Your task to perform on an android device: turn on notifications settings in the gmail app Image 0: 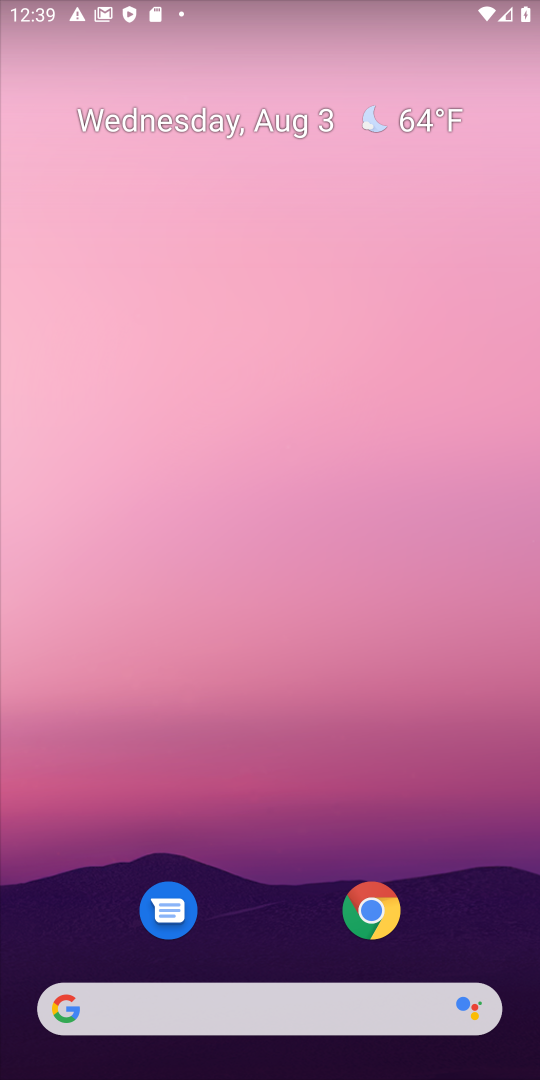
Step 0: drag from (398, 1000) to (532, 342)
Your task to perform on an android device: turn on notifications settings in the gmail app Image 1: 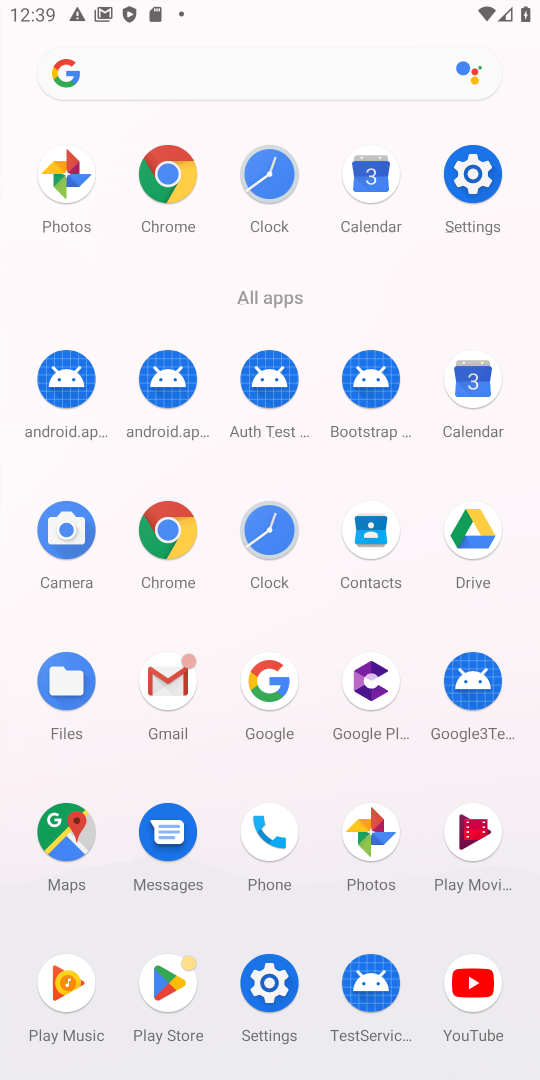
Step 1: click (187, 642)
Your task to perform on an android device: turn on notifications settings in the gmail app Image 2: 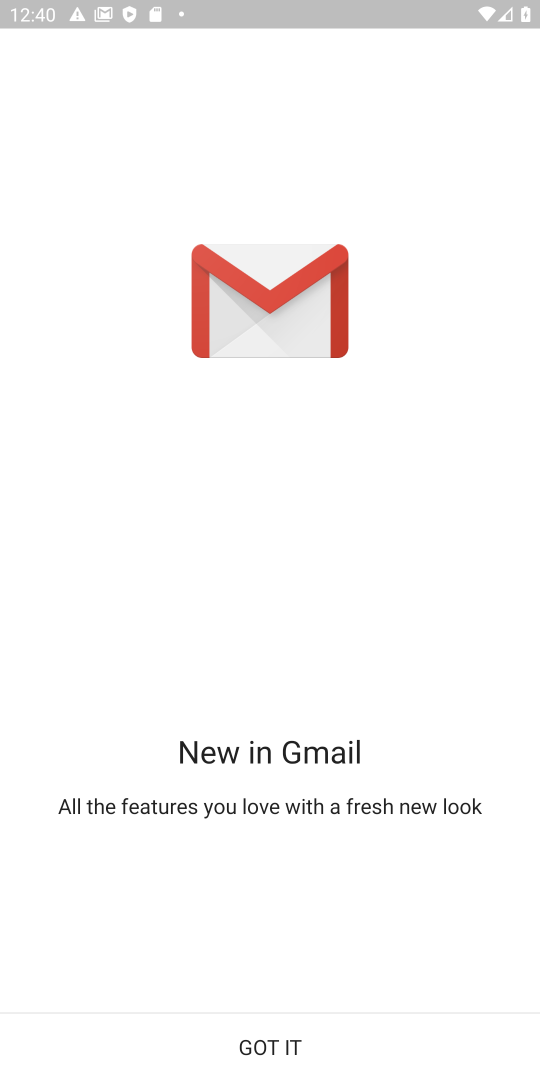
Step 2: click (281, 1029)
Your task to perform on an android device: turn on notifications settings in the gmail app Image 3: 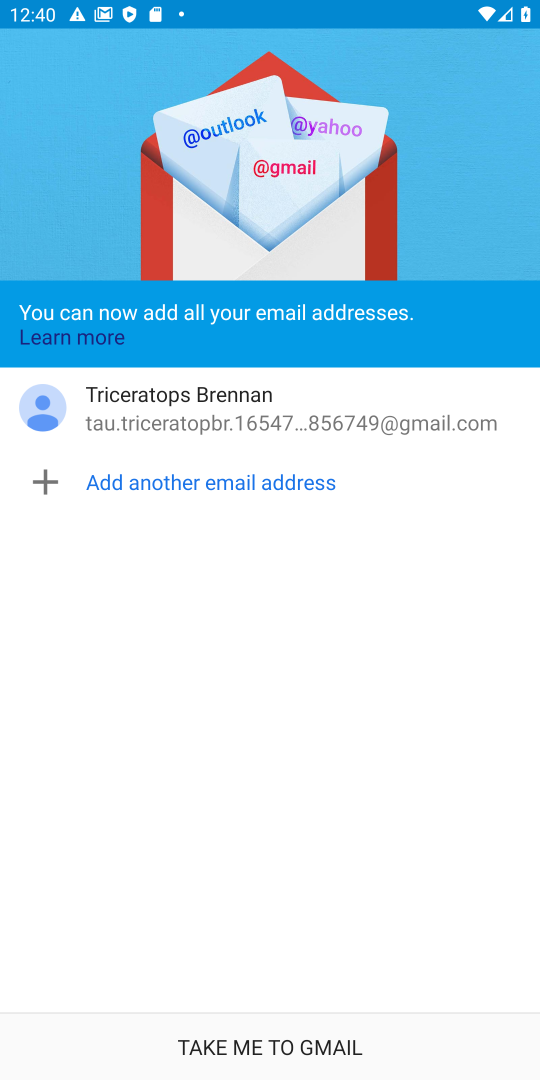
Step 3: click (262, 1036)
Your task to perform on an android device: turn on notifications settings in the gmail app Image 4: 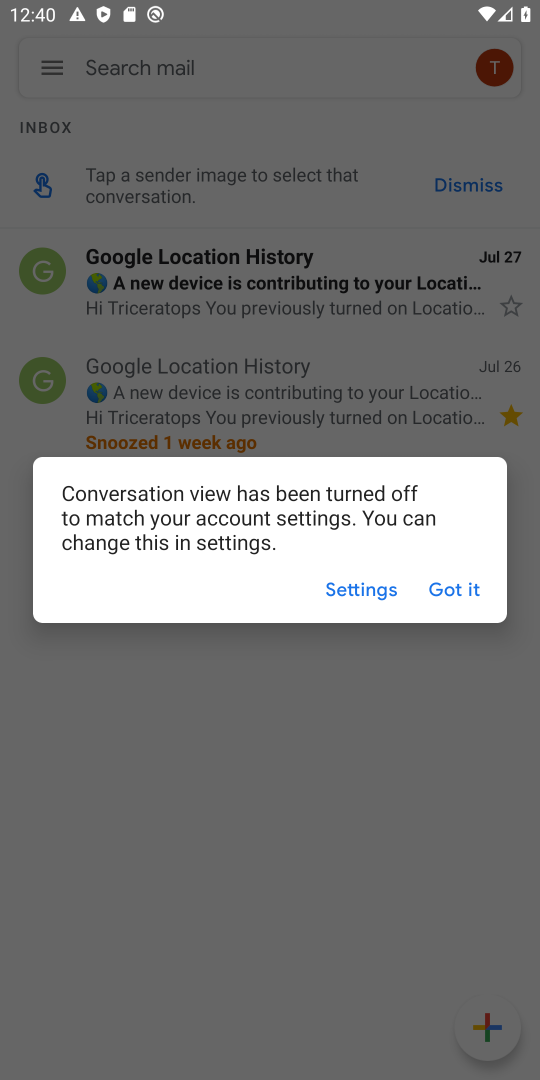
Step 4: click (374, 588)
Your task to perform on an android device: turn on notifications settings in the gmail app Image 5: 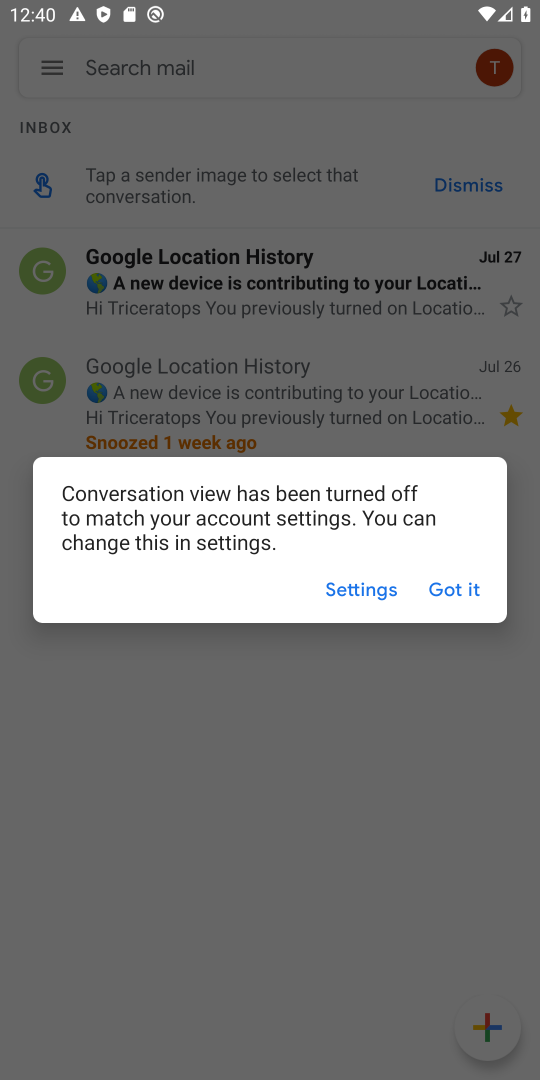
Step 5: click (374, 588)
Your task to perform on an android device: turn on notifications settings in the gmail app Image 6: 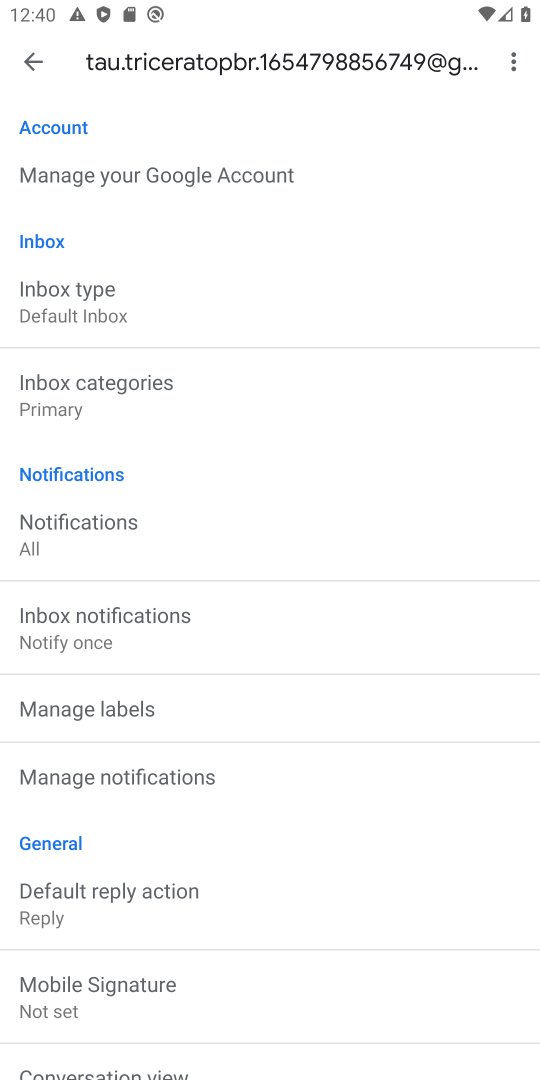
Step 6: task complete